Your task to perform on an android device: turn off airplane mode Image 0: 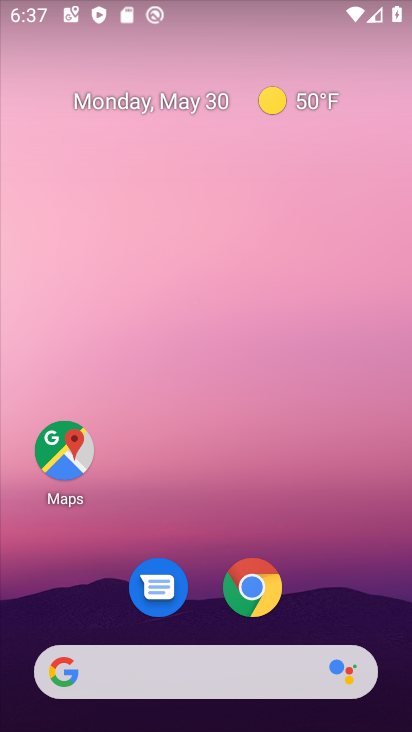
Step 0: drag from (311, 544) to (183, 25)
Your task to perform on an android device: turn off airplane mode Image 1: 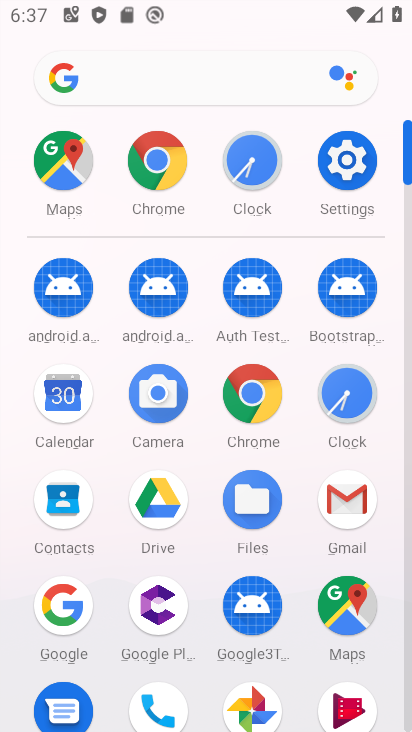
Step 1: drag from (16, 586) to (29, 188)
Your task to perform on an android device: turn off airplane mode Image 2: 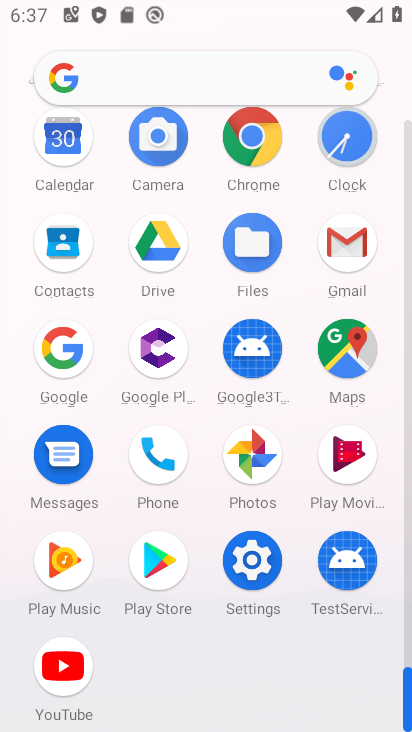
Step 2: click (246, 560)
Your task to perform on an android device: turn off airplane mode Image 3: 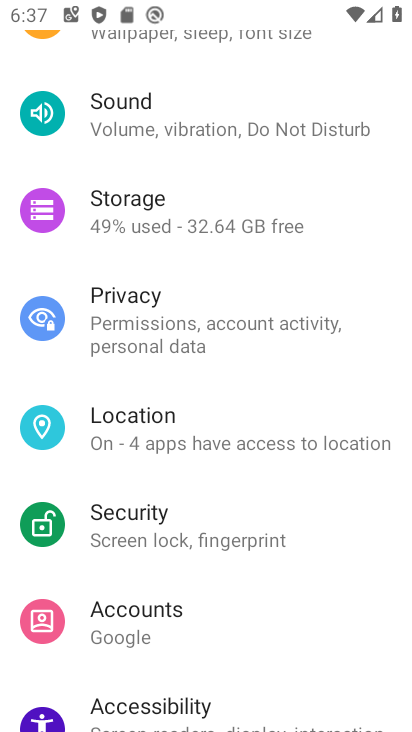
Step 3: drag from (275, 132) to (267, 433)
Your task to perform on an android device: turn off airplane mode Image 4: 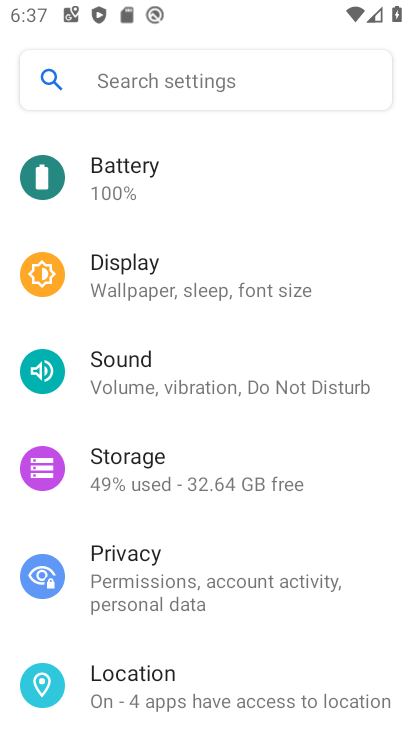
Step 4: drag from (248, 289) to (252, 660)
Your task to perform on an android device: turn off airplane mode Image 5: 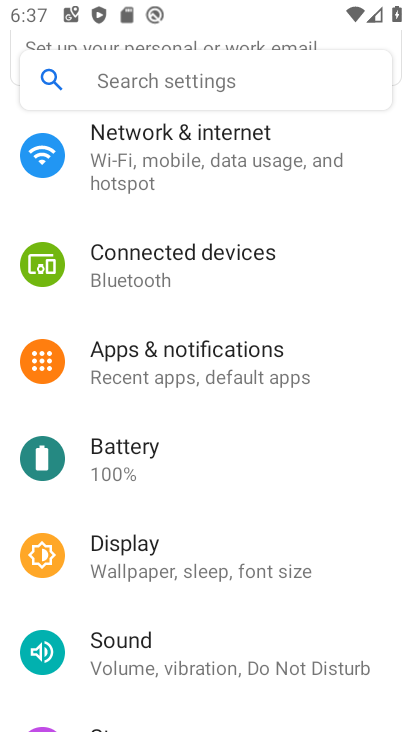
Step 5: drag from (220, 209) to (215, 646)
Your task to perform on an android device: turn off airplane mode Image 6: 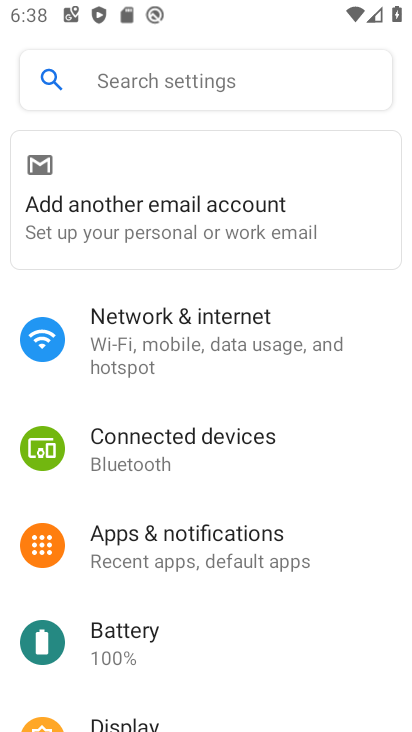
Step 6: click (210, 355)
Your task to perform on an android device: turn off airplane mode Image 7: 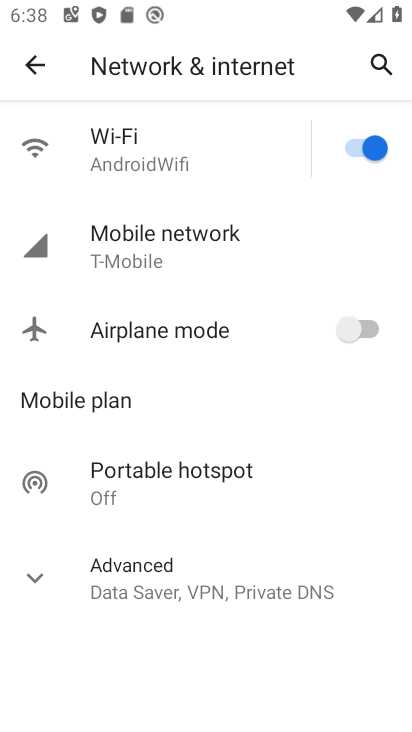
Step 7: click (56, 571)
Your task to perform on an android device: turn off airplane mode Image 8: 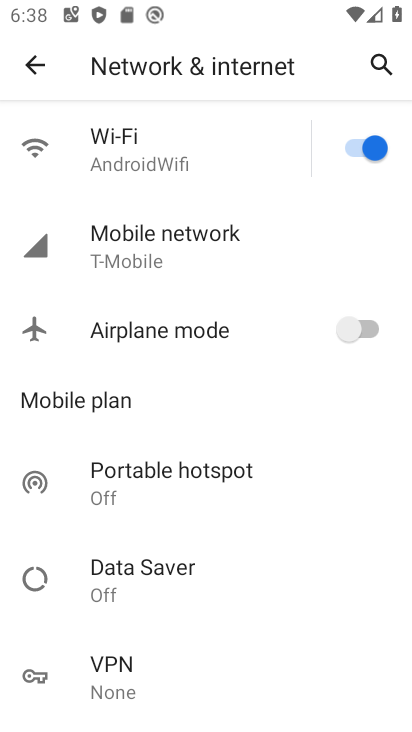
Step 8: task complete